Your task to perform on an android device: change the clock display to digital Image 0: 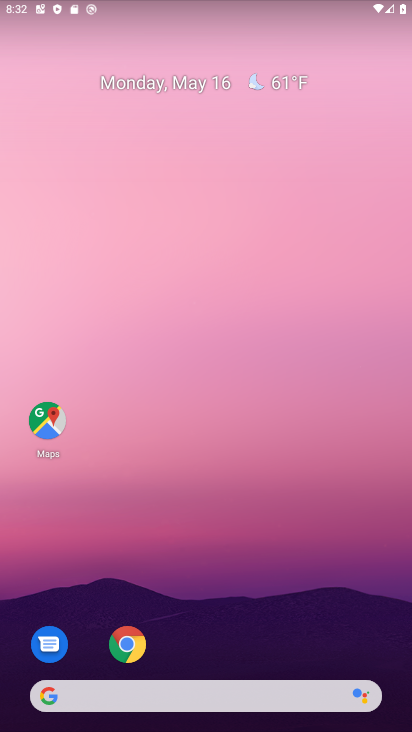
Step 0: drag from (188, 218) to (179, 152)
Your task to perform on an android device: change the clock display to digital Image 1: 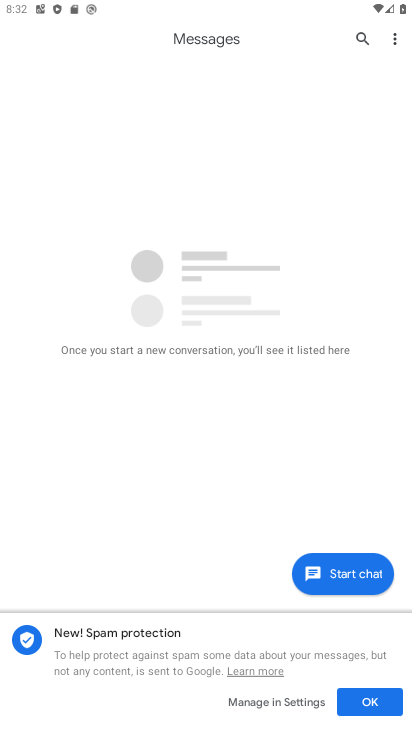
Step 1: press home button
Your task to perform on an android device: change the clock display to digital Image 2: 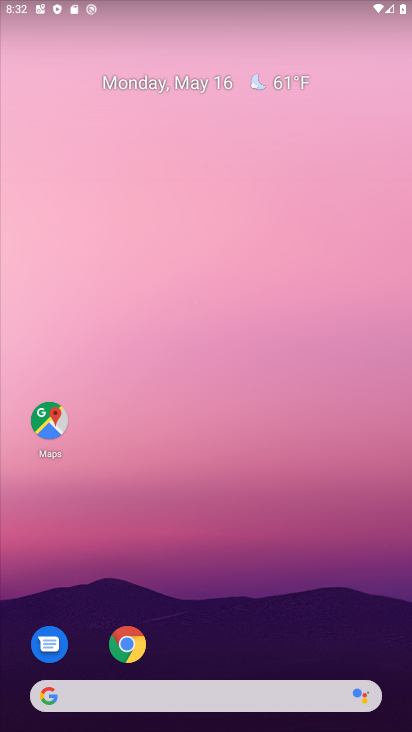
Step 2: drag from (229, 627) to (210, 112)
Your task to perform on an android device: change the clock display to digital Image 3: 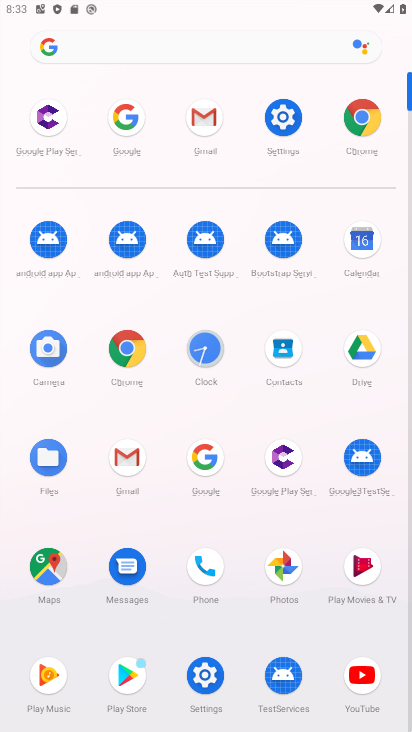
Step 3: click (203, 351)
Your task to perform on an android device: change the clock display to digital Image 4: 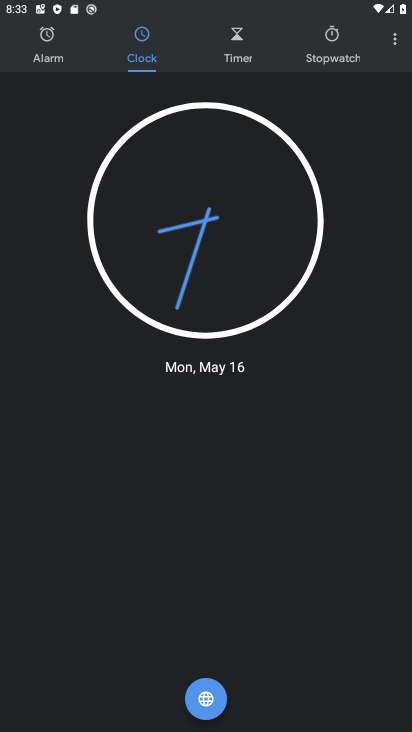
Step 4: click (390, 40)
Your task to perform on an android device: change the clock display to digital Image 5: 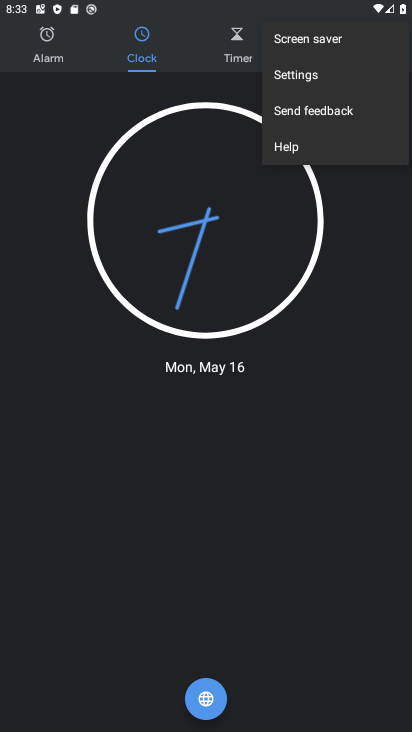
Step 5: click (307, 75)
Your task to perform on an android device: change the clock display to digital Image 6: 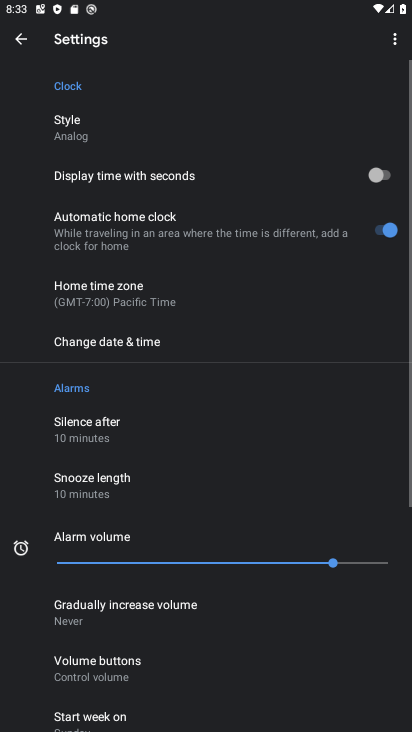
Step 6: click (150, 129)
Your task to perform on an android device: change the clock display to digital Image 7: 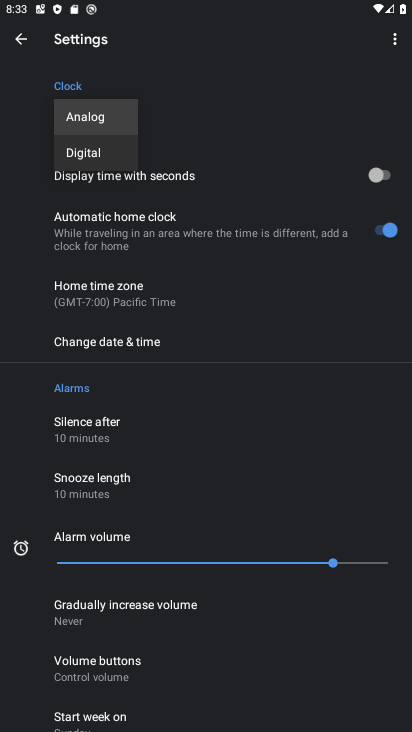
Step 7: click (97, 157)
Your task to perform on an android device: change the clock display to digital Image 8: 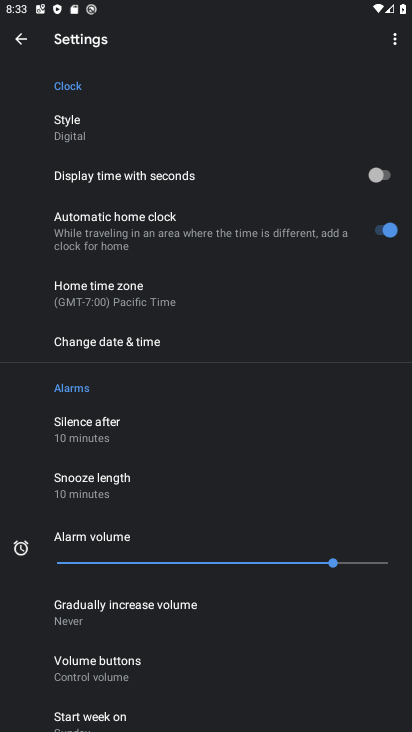
Step 8: task complete